Your task to perform on an android device: Turn off the flashlight Image 0: 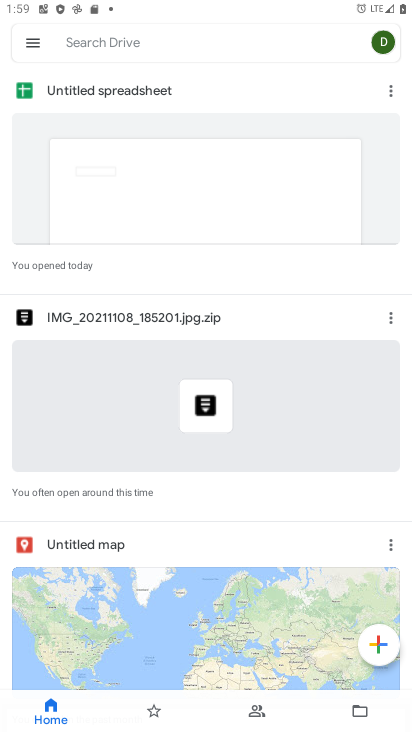
Step 0: press home button
Your task to perform on an android device: Turn off the flashlight Image 1: 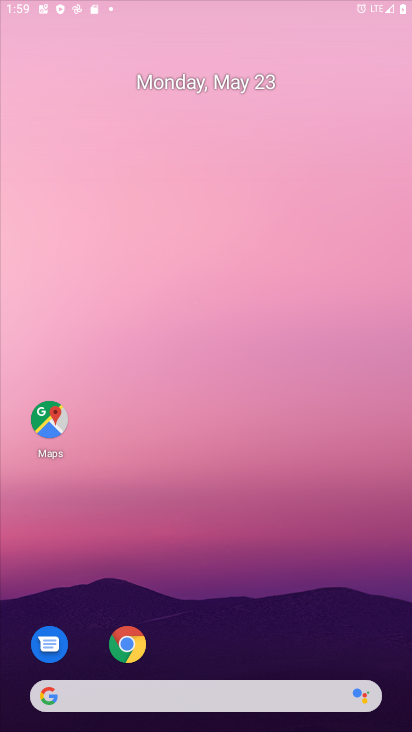
Step 1: drag from (245, 649) to (182, 78)
Your task to perform on an android device: Turn off the flashlight Image 2: 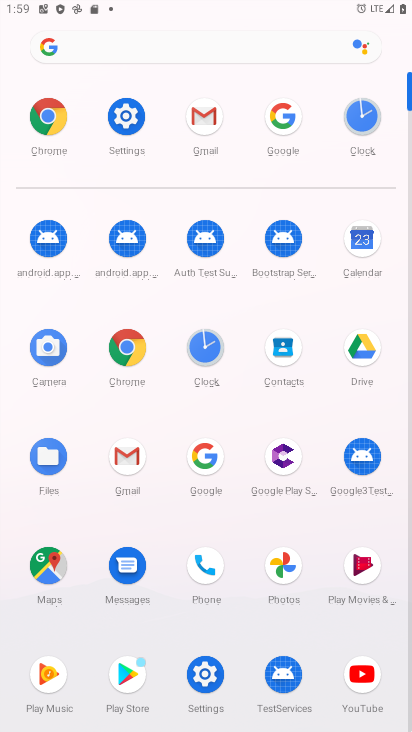
Step 2: click (129, 118)
Your task to perform on an android device: Turn off the flashlight Image 3: 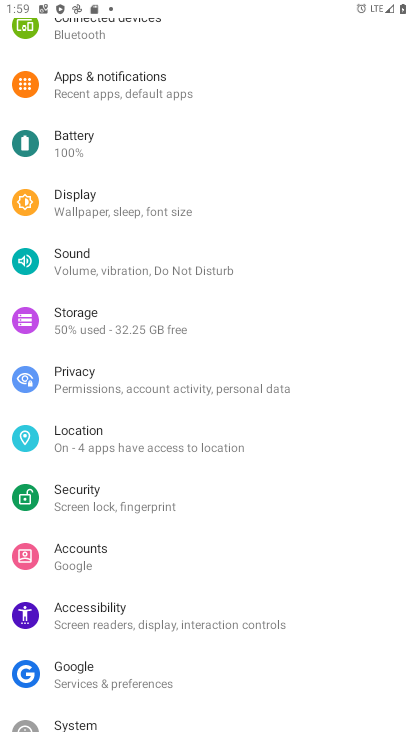
Step 3: task complete